Your task to perform on an android device: What is the capital of Canada? Image 0: 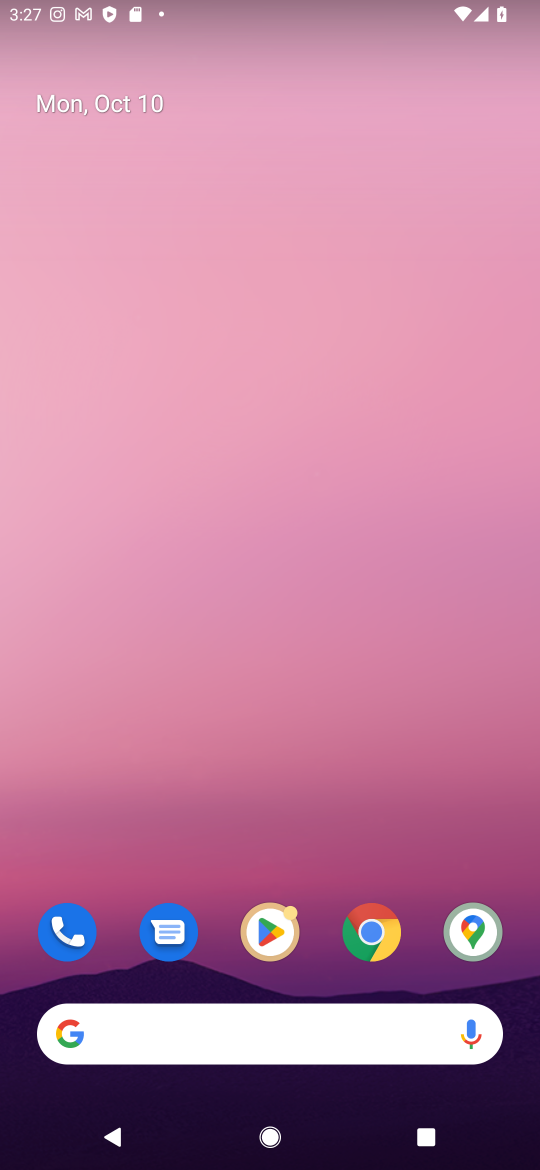
Step 0: press home button
Your task to perform on an android device: What is the capital of Canada? Image 1: 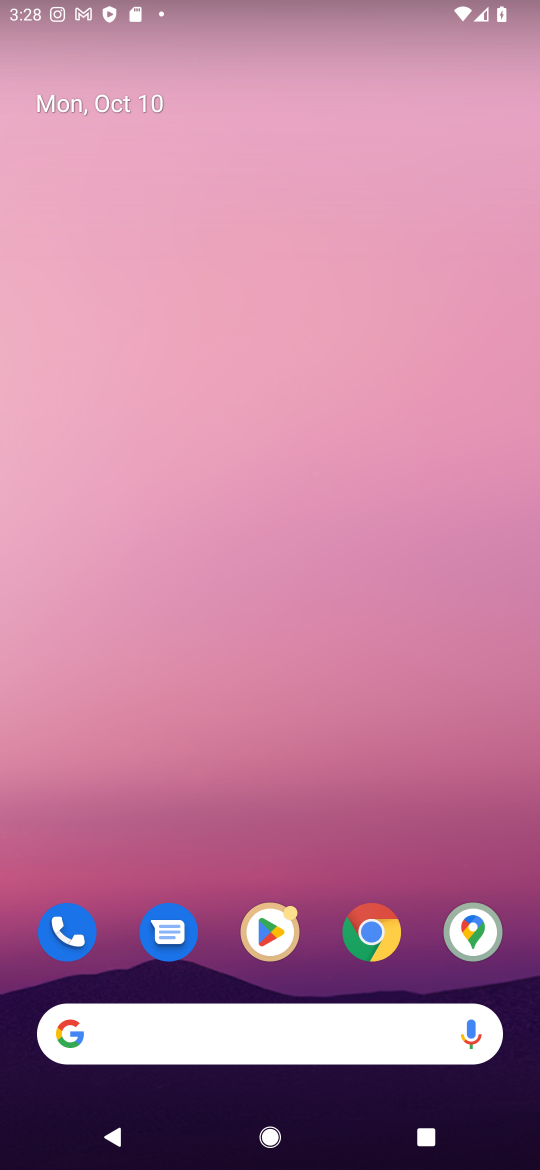
Step 1: click (250, 1031)
Your task to perform on an android device: What is the capital of Canada? Image 2: 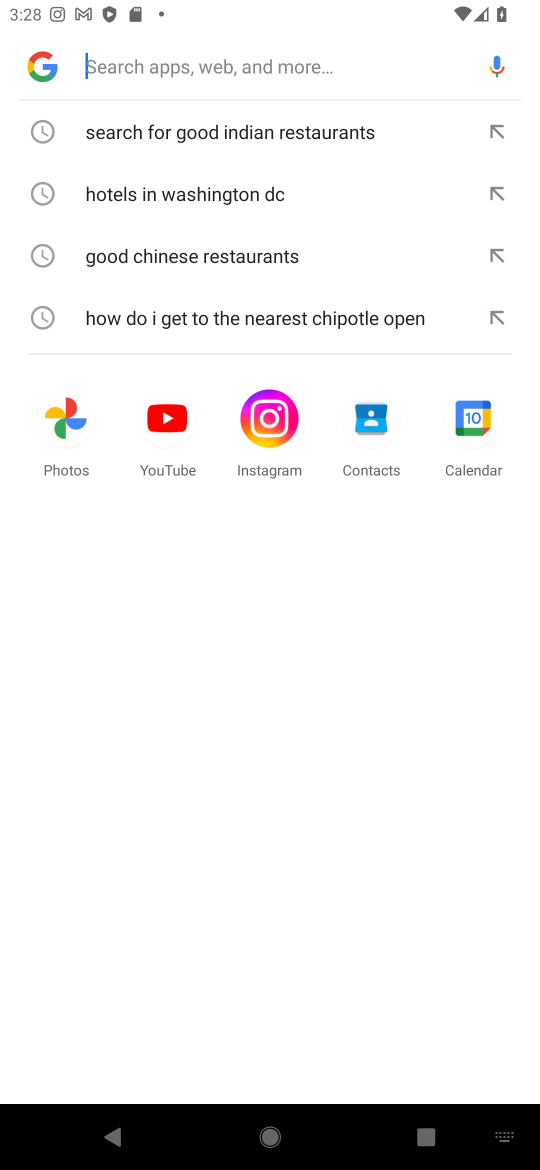
Step 2: type "What is the capital of Canada"
Your task to perform on an android device: What is the capital of Canada? Image 3: 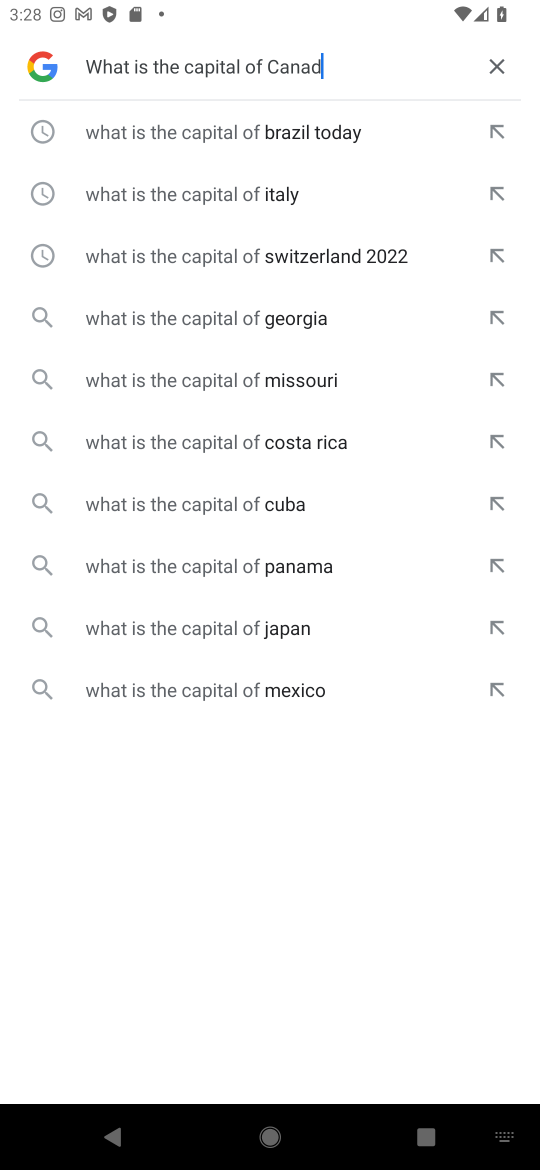
Step 3: press enter
Your task to perform on an android device: What is the capital of Canada? Image 4: 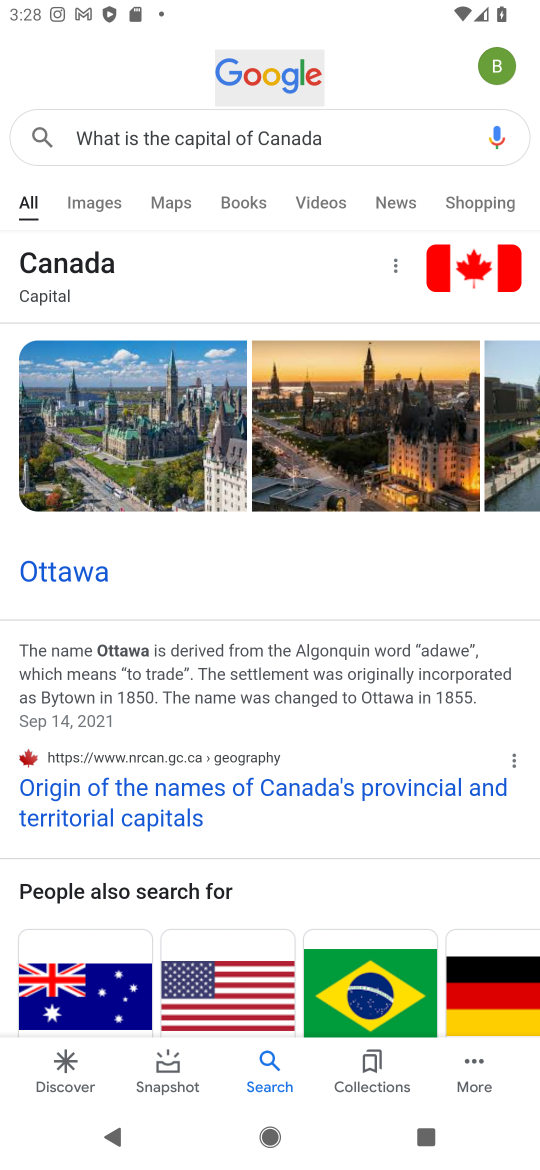
Step 4: task complete